Your task to perform on an android device: turn on javascript in the chrome app Image 0: 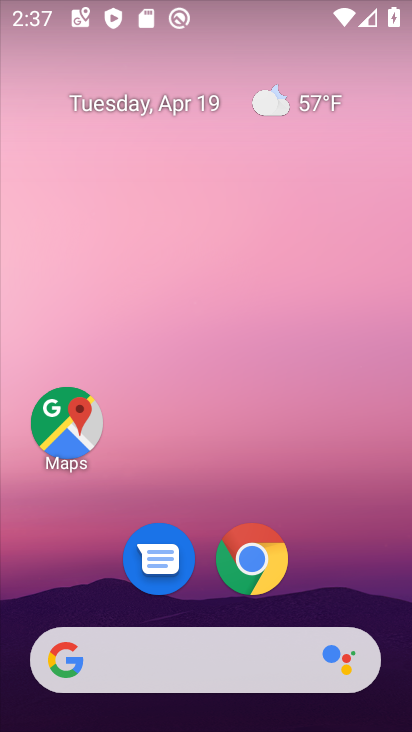
Step 0: drag from (214, 570) to (228, 131)
Your task to perform on an android device: turn on javascript in the chrome app Image 1: 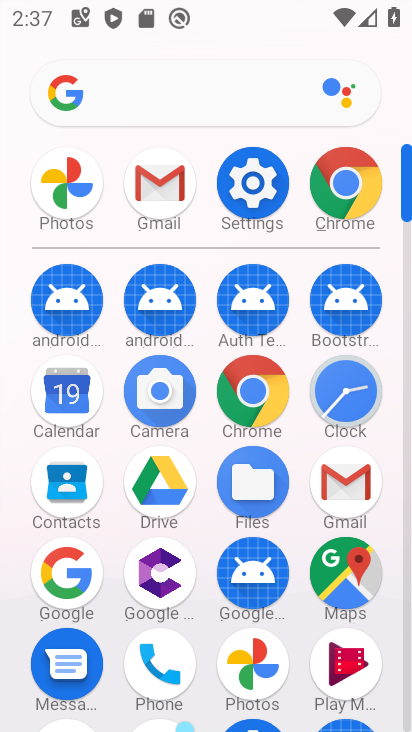
Step 1: click (251, 384)
Your task to perform on an android device: turn on javascript in the chrome app Image 2: 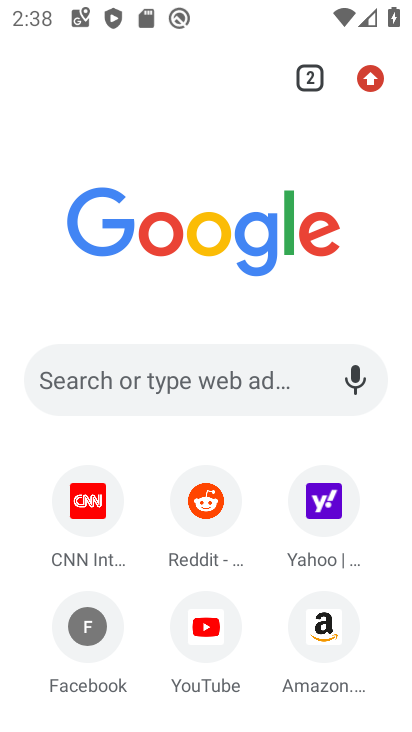
Step 2: click (369, 77)
Your task to perform on an android device: turn on javascript in the chrome app Image 3: 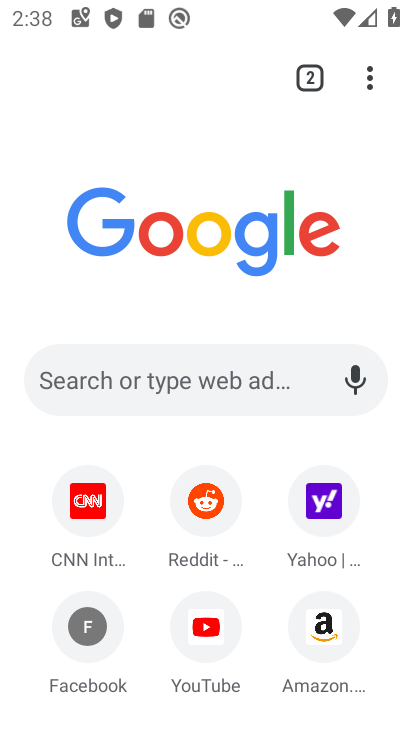
Step 3: click (362, 64)
Your task to perform on an android device: turn on javascript in the chrome app Image 4: 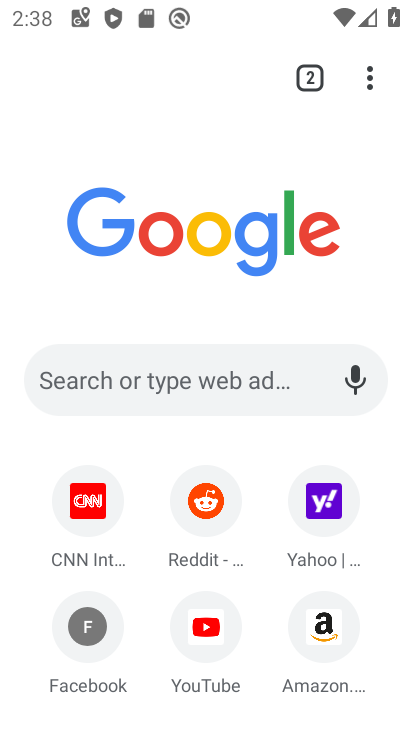
Step 4: click (370, 70)
Your task to perform on an android device: turn on javascript in the chrome app Image 5: 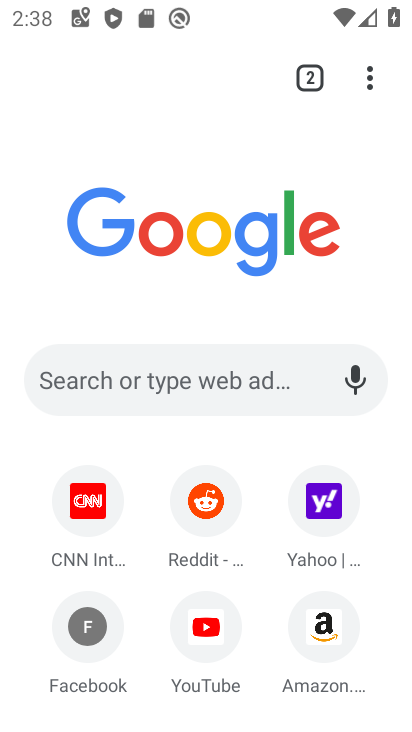
Step 5: click (363, 78)
Your task to perform on an android device: turn on javascript in the chrome app Image 6: 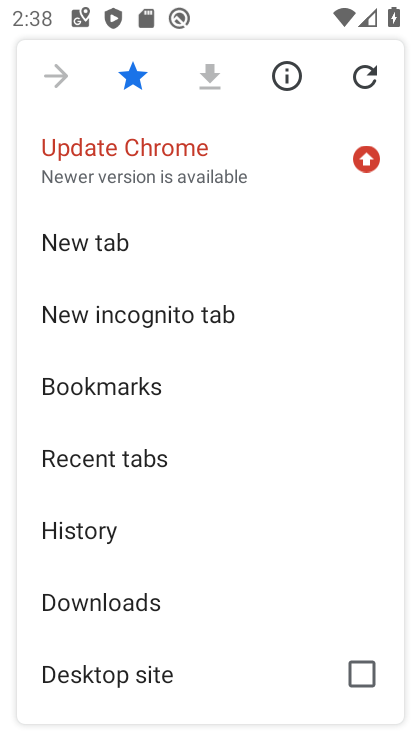
Step 6: drag from (162, 586) to (189, 235)
Your task to perform on an android device: turn on javascript in the chrome app Image 7: 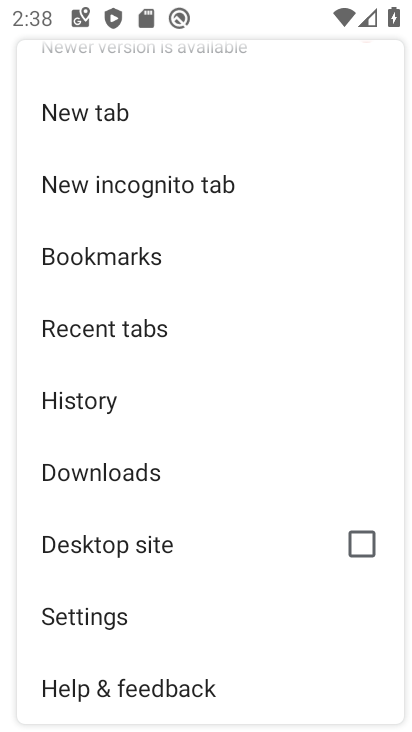
Step 7: click (132, 615)
Your task to perform on an android device: turn on javascript in the chrome app Image 8: 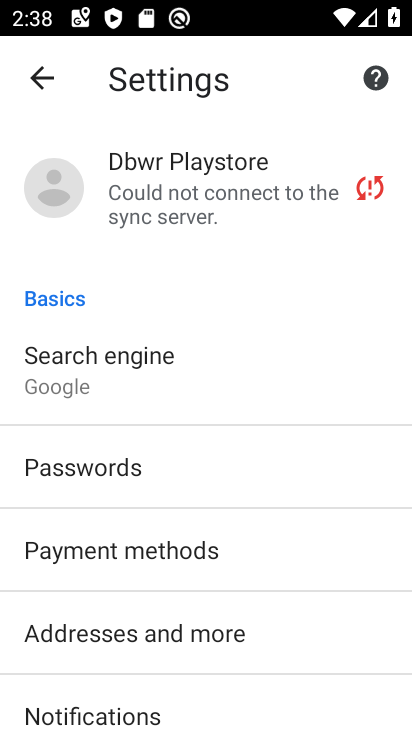
Step 8: drag from (195, 662) to (238, 239)
Your task to perform on an android device: turn on javascript in the chrome app Image 9: 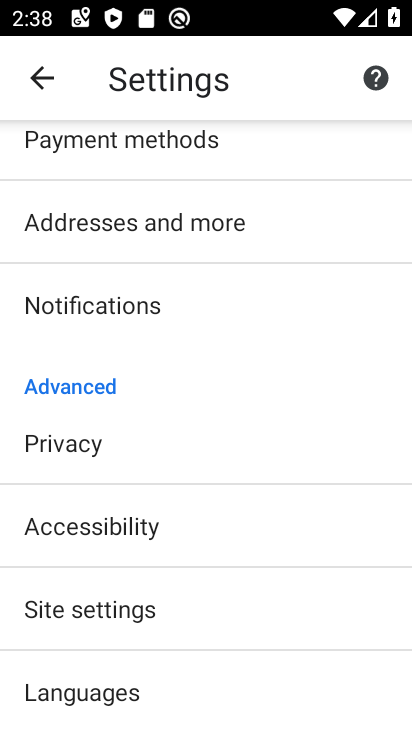
Step 9: click (157, 622)
Your task to perform on an android device: turn on javascript in the chrome app Image 10: 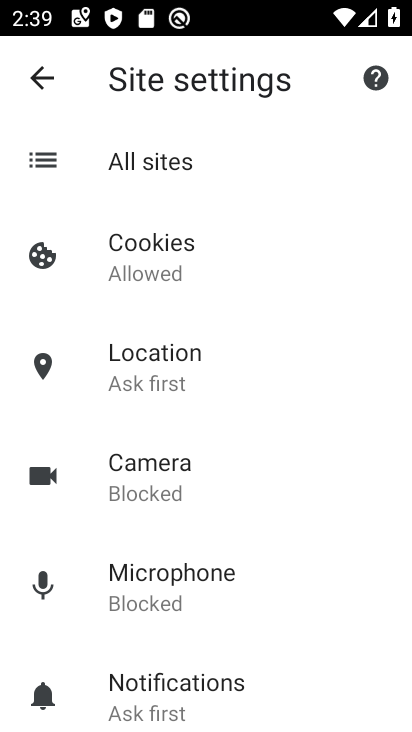
Step 10: drag from (192, 642) to (219, 339)
Your task to perform on an android device: turn on javascript in the chrome app Image 11: 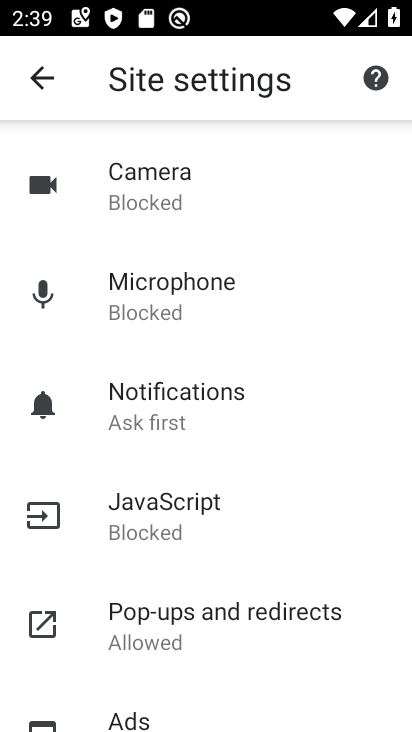
Step 11: click (187, 522)
Your task to perform on an android device: turn on javascript in the chrome app Image 12: 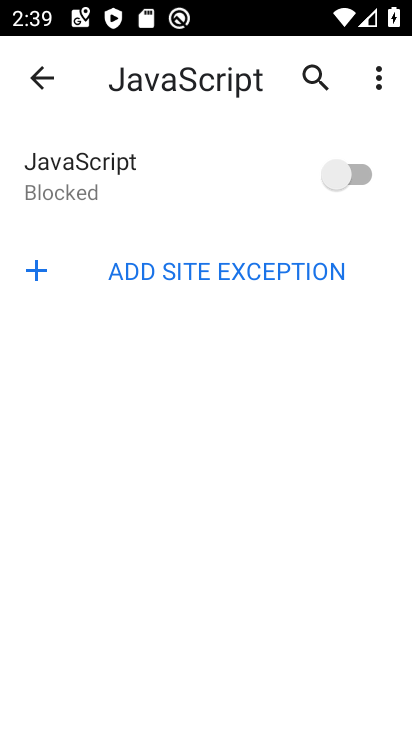
Step 12: click (368, 164)
Your task to perform on an android device: turn on javascript in the chrome app Image 13: 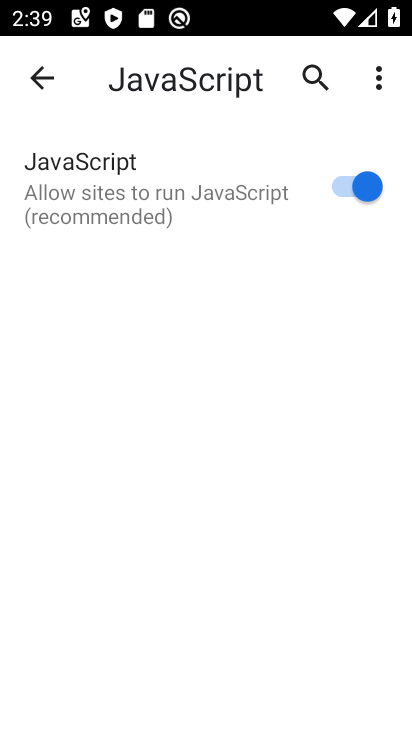
Step 13: task complete